Your task to perform on an android device: Open the Play Movies app and select the watchlist tab. Image 0: 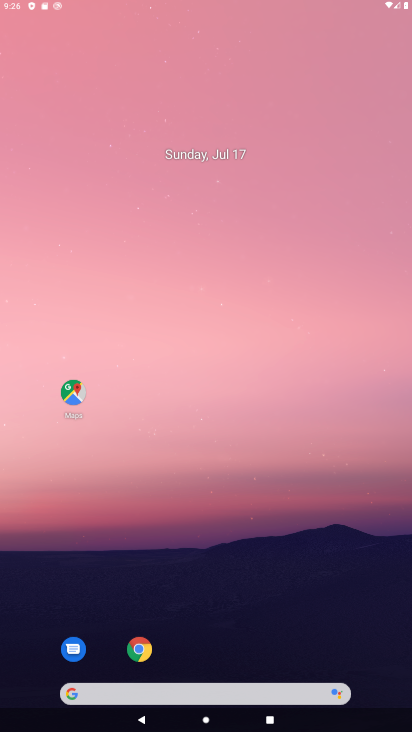
Step 0: drag from (108, 443) to (142, 281)
Your task to perform on an android device: Open the Play Movies app and select the watchlist tab. Image 1: 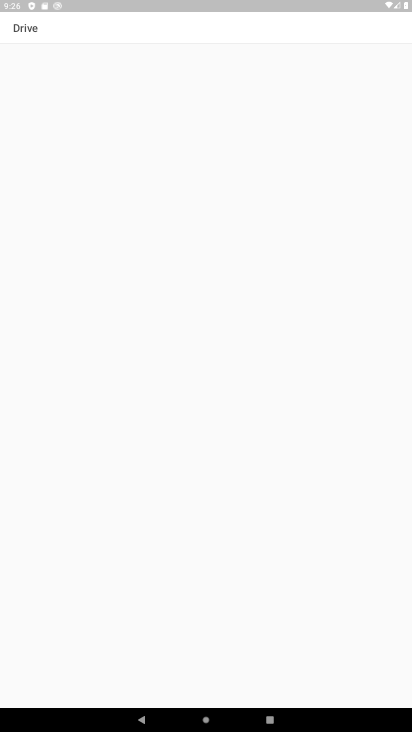
Step 1: press home button
Your task to perform on an android device: Open the Play Movies app and select the watchlist tab. Image 2: 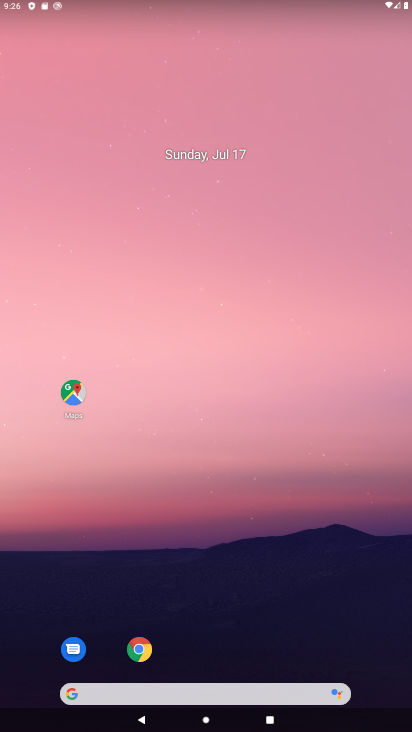
Step 2: drag from (169, 322) to (202, 189)
Your task to perform on an android device: Open the Play Movies app and select the watchlist tab. Image 3: 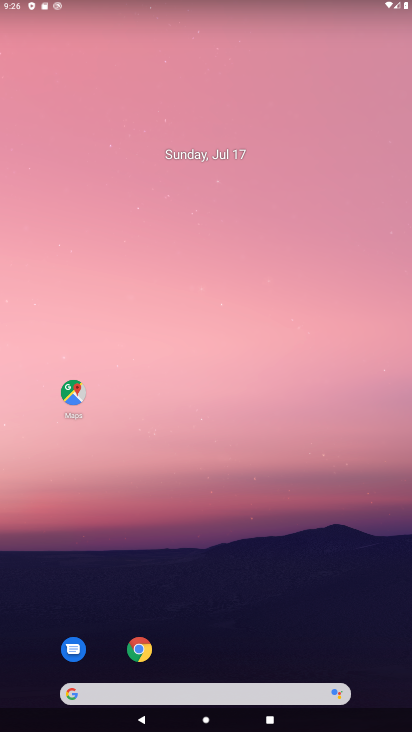
Step 3: drag from (254, 34) to (238, 90)
Your task to perform on an android device: Open the Play Movies app and select the watchlist tab. Image 4: 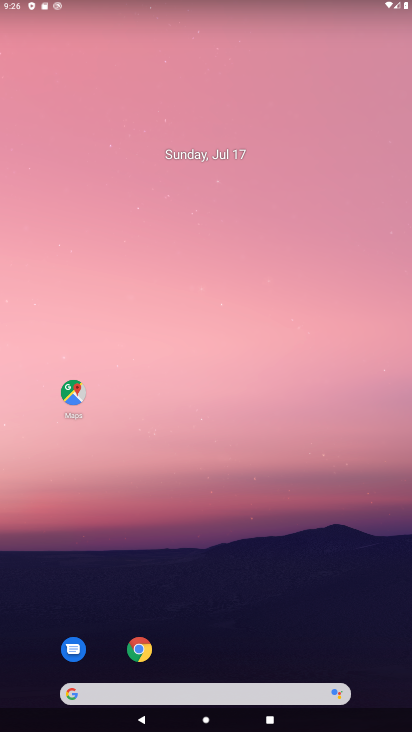
Step 4: drag from (87, 454) to (224, 38)
Your task to perform on an android device: Open the Play Movies app and select the watchlist tab. Image 5: 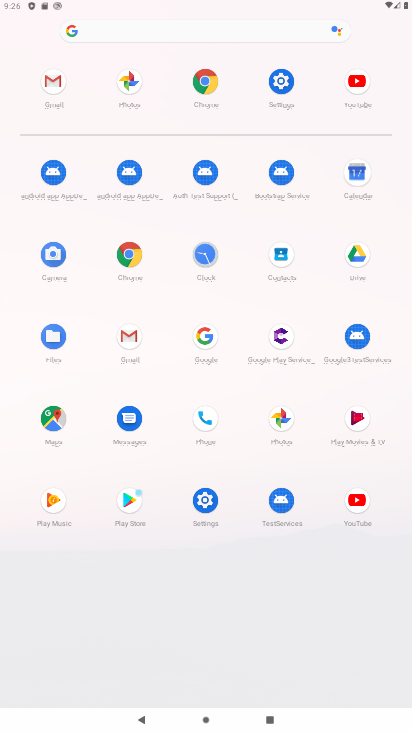
Step 5: click (361, 419)
Your task to perform on an android device: Open the Play Movies app and select the watchlist tab. Image 6: 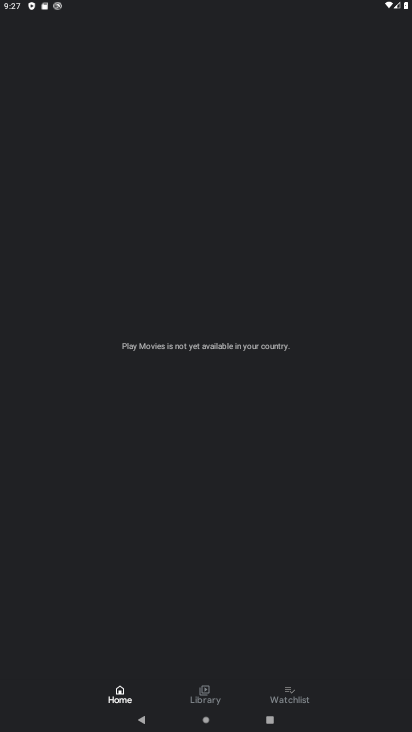
Step 6: click (300, 700)
Your task to perform on an android device: Open the Play Movies app and select the watchlist tab. Image 7: 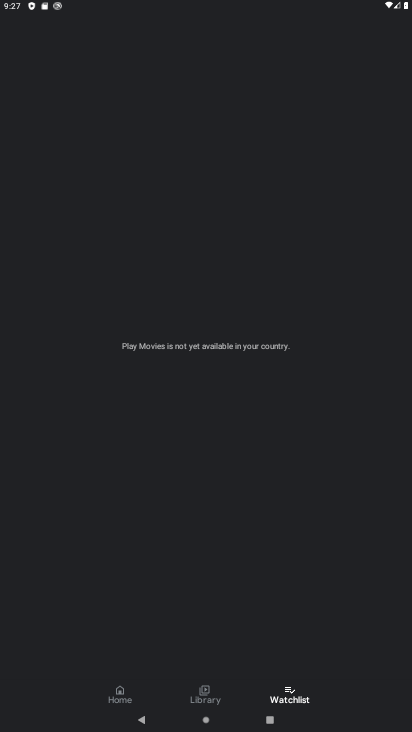
Step 7: task complete